Your task to perform on an android device: turn off priority inbox in the gmail app Image 0: 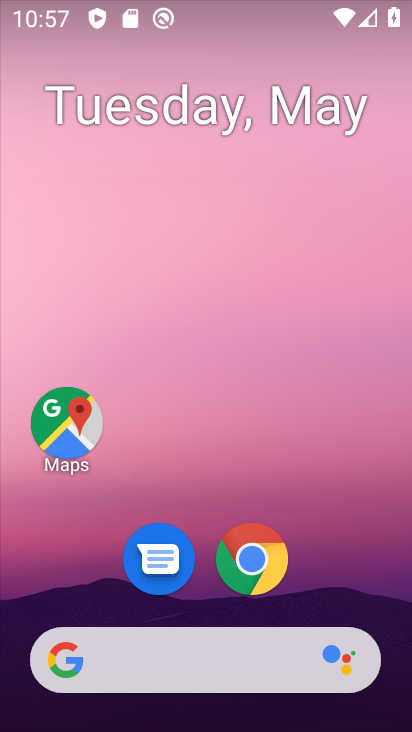
Step 0: drag from (346, 615) to (242, 193)
Your task to perform on an android device: turn off priority inbox in the gmail app Image 1: 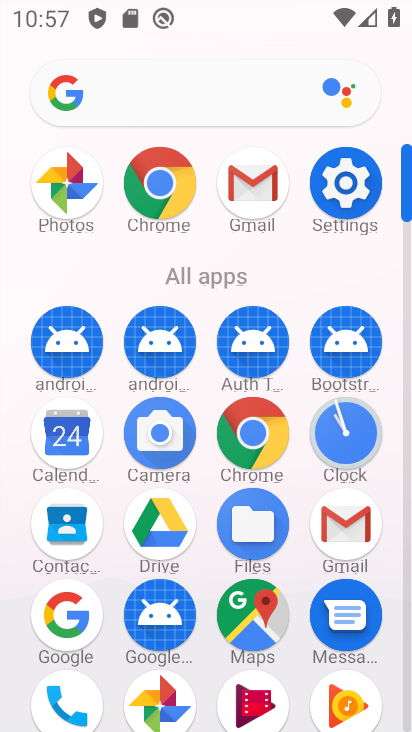
Step 1: click (242, 193)
Your task to perform on an android device: turn off priority inbox in the gmail app Image 2: 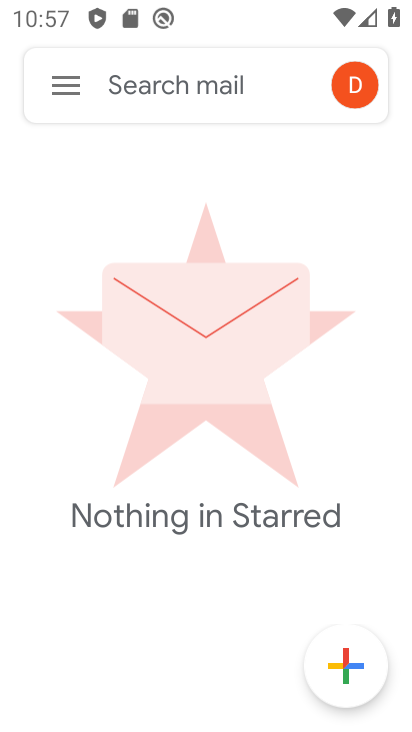
Step 2: click (65, 102)
Your task to perform on an android device: turn off priority inbox in the gmail app Image 3: 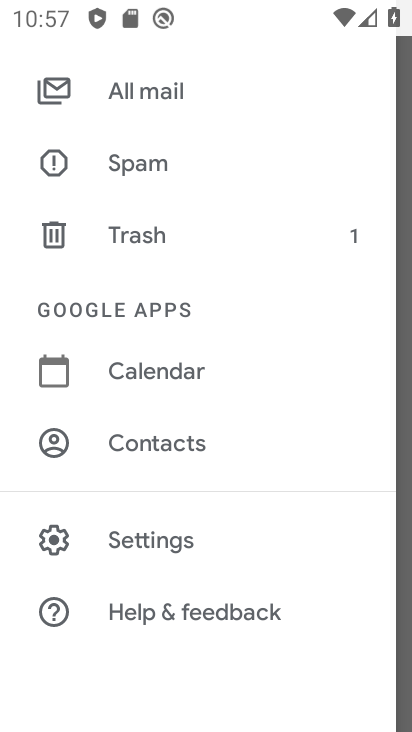
Step 3: click (208, 537)
Your task to perform on an android device: turn off priority inbox in the gmail app Image 4: 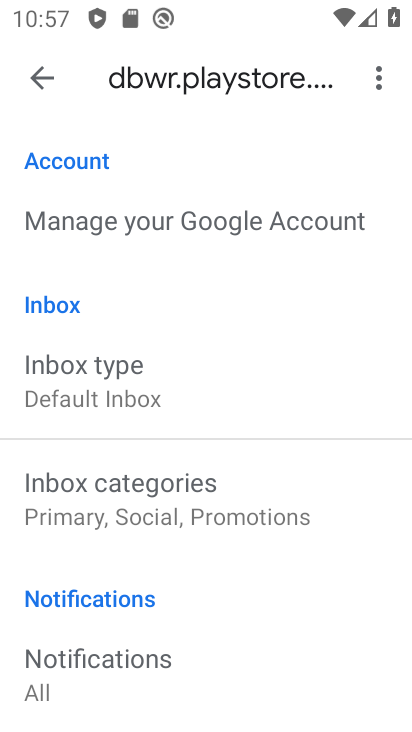
Step 4: drag from (179, 690) to (162, 518)
Your task to perform on an android device: turn off priority inbox in the gmail app Image 5: 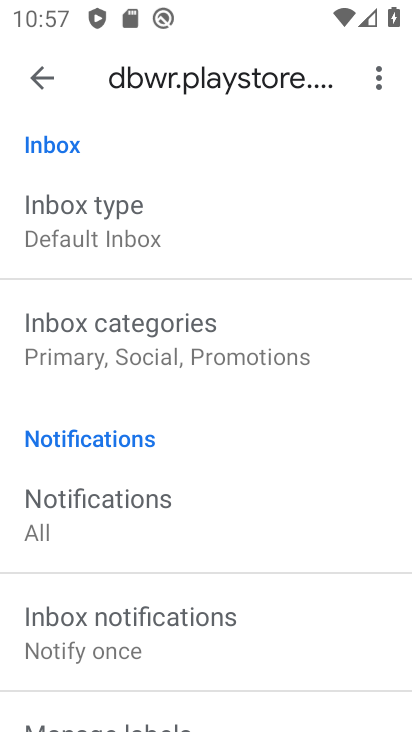
Step 5: click (100, 190)
Your task to perform on an android device: turn off priority inbox in the gmail app Image 6: 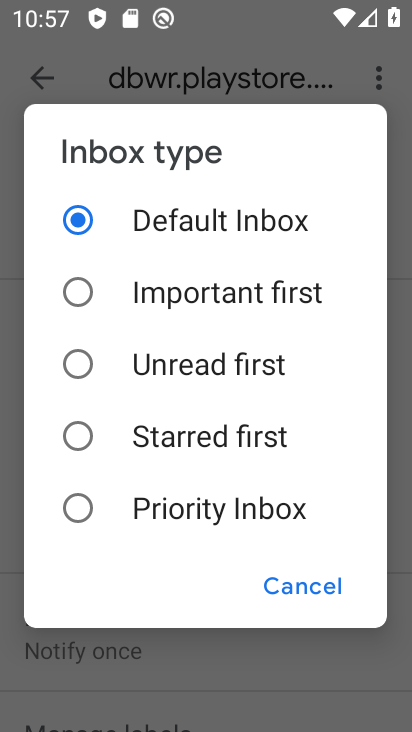
Step 6: task complete